Your task to perform on an android device: Open wifi settings Image 0: 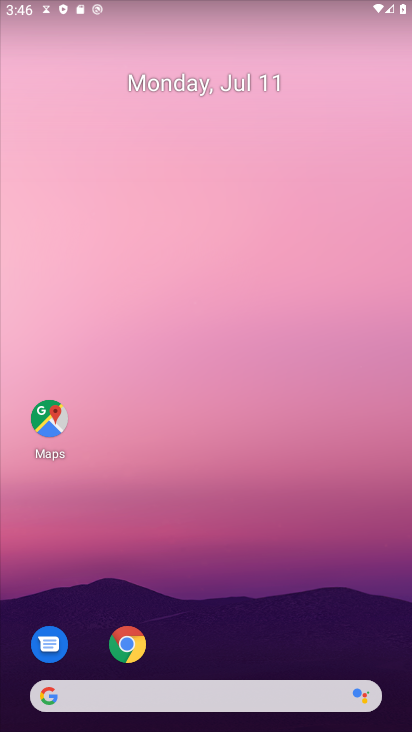
Step 0: click (223, 719)
Your task to perform on an android device: Open wifi settings Image 1: 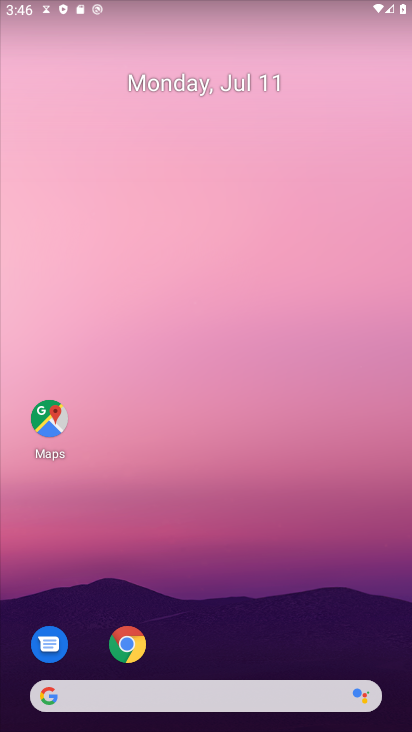
Step 1: click (210, 31)
Your task to perform on an android device: Open wifi settings Image 2: 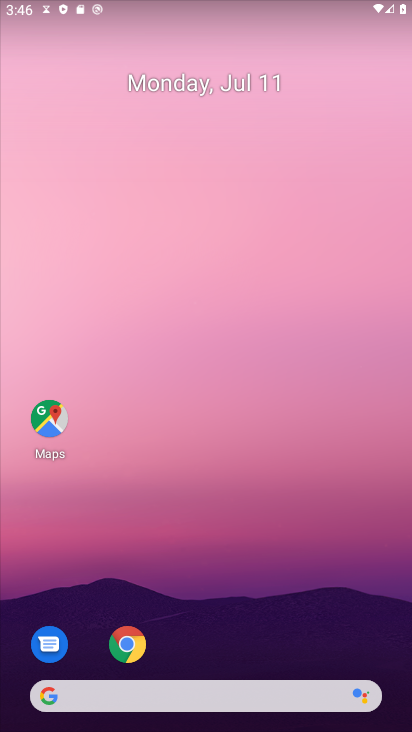
Step 2: drag from (227, 729) to (188, 103)
Your task to perform on an android device: Open wifi settings Image 3: 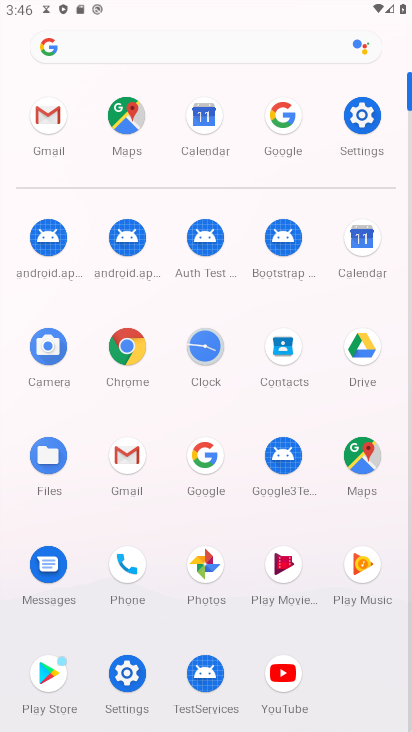
Step 3: click (365, 117)
Your task to perform on an android device: Open wifi settings Image 4: 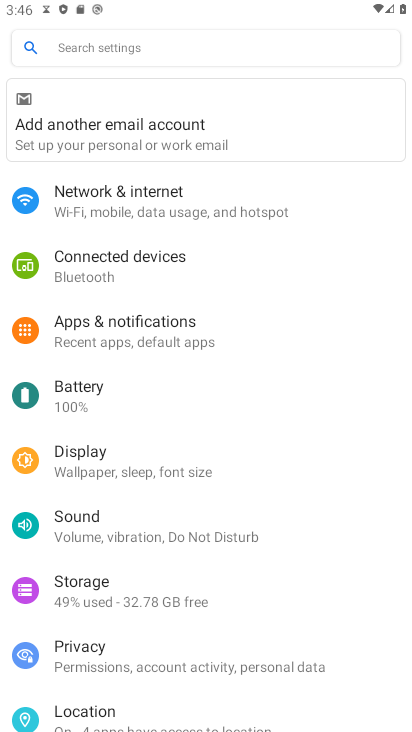
Step 4: click (89, 207)
Your task to perform on an android device: Open wifi settings Image 5: 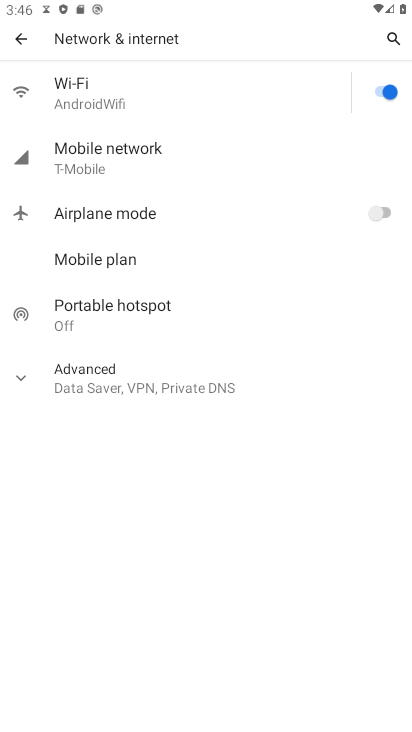
Step 5: click (84, 94)
Your task to perform on an android device: Open wifi settings Image 6: 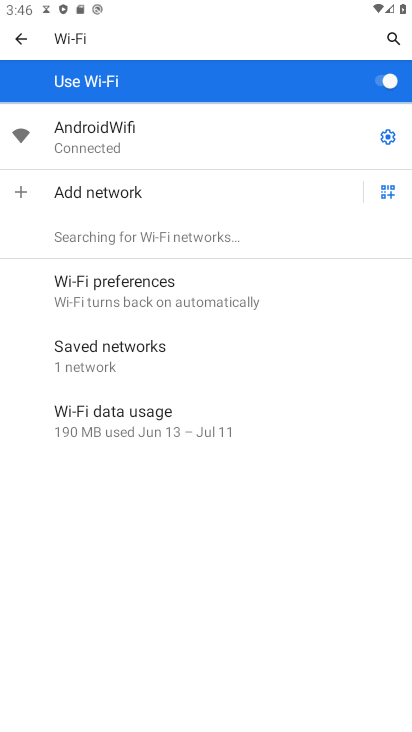
Step 6: task complete